Your task to perform on an android device: Check the news Image 0: 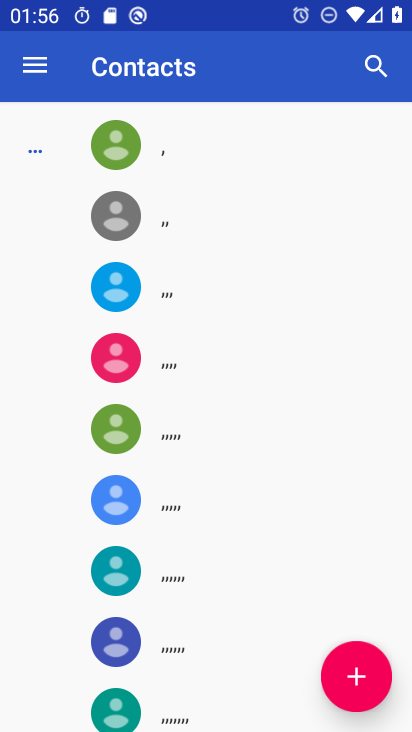
Step 0: press home button
Your task to perform on an android device: Check the news Image 1: 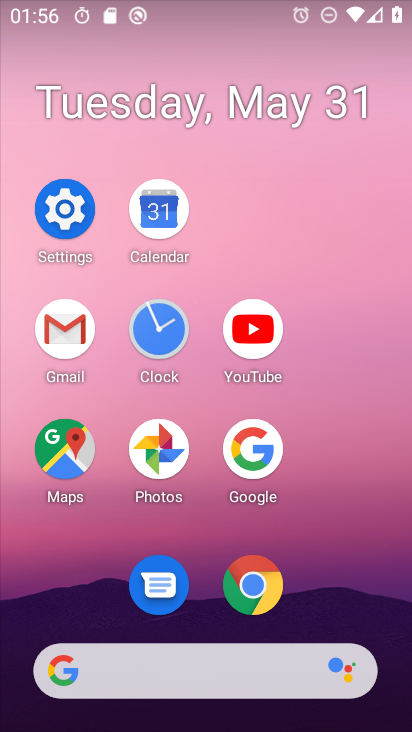
Step 1: click (272, 457)
Your task to perform on an android device: Check the news Image 2: 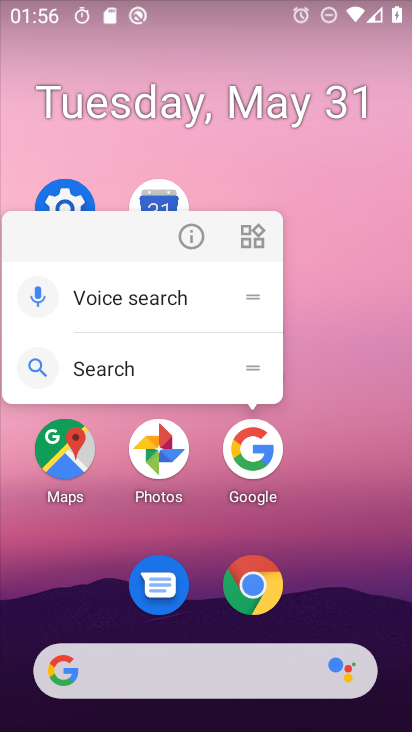
Step 2: click (276, 413)
Your task to perform on an android device: Check the news Image 3: 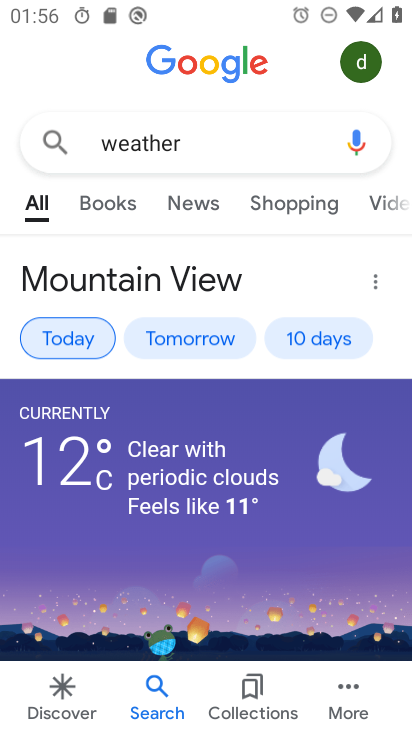
Step 3: click (207, 139)
Your task to perform on an android device: Check the news Image 4: 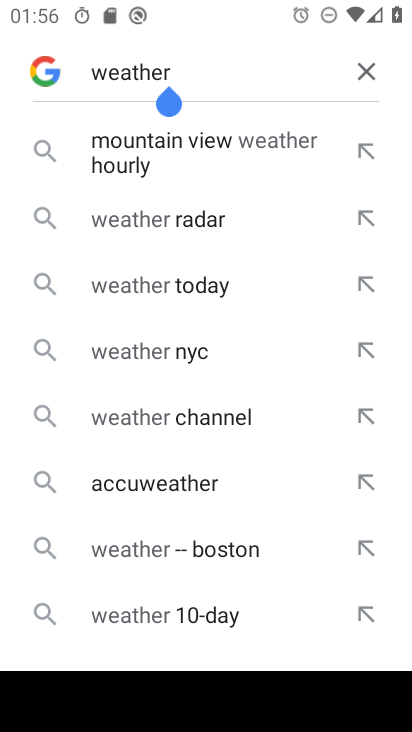
Step 4: click (384, 56)
Your task to perform on an android device: Check the news Image 5: 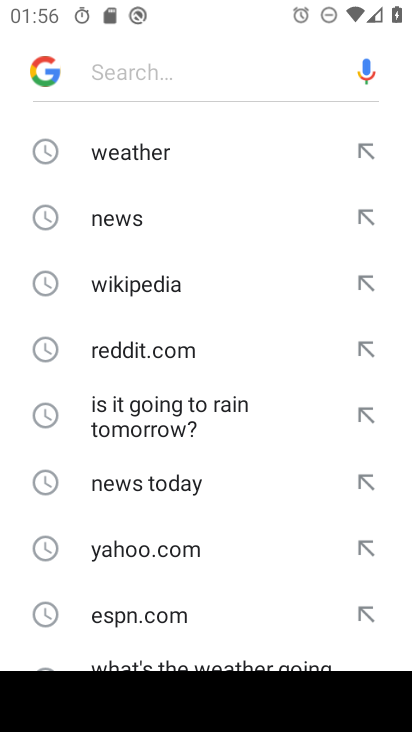
Step 5: click (198, 212)
Your task to perform on an android device: Check the news Image 6: 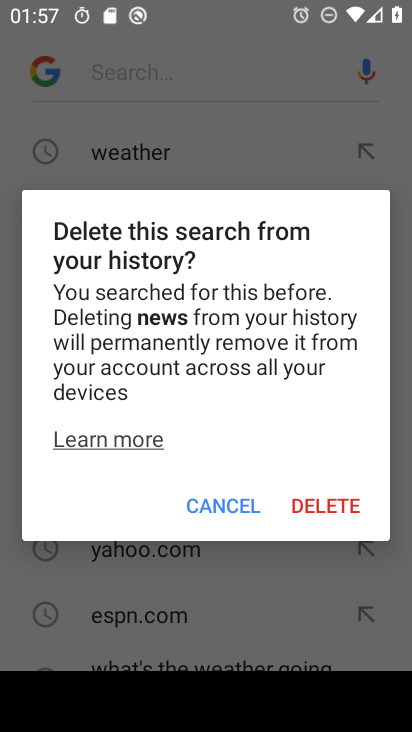
Step 6: click (243, 505)
Your task to perform on an android device: Check the news Image 7: 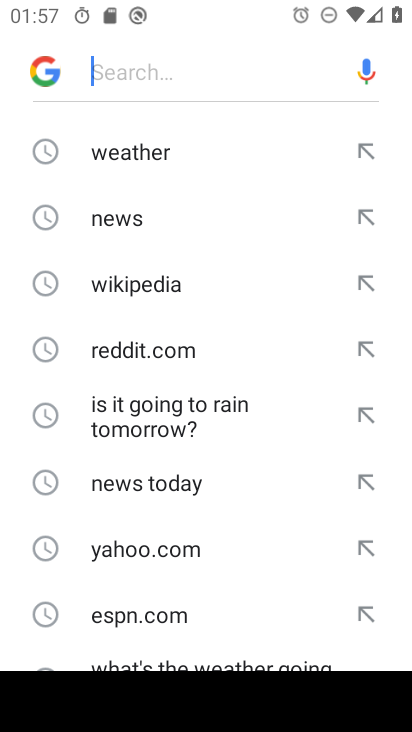
Step 7: click (158, 205)
Your task to perform on an android device: Check the news Image 8: 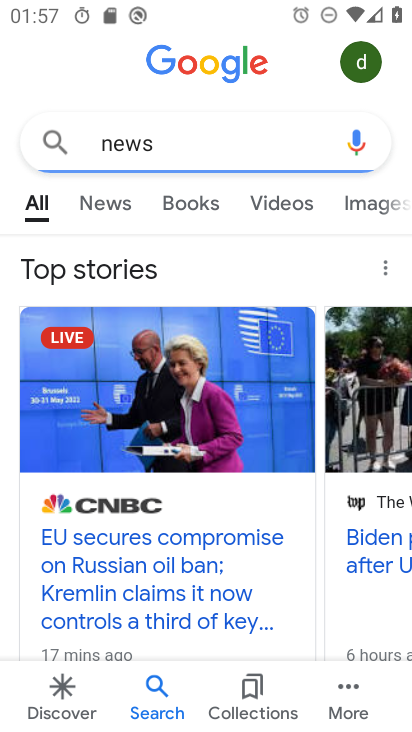
Step 8: task complete